Your task to perform on an android device: add a label to a message in the gmail app Image 0: 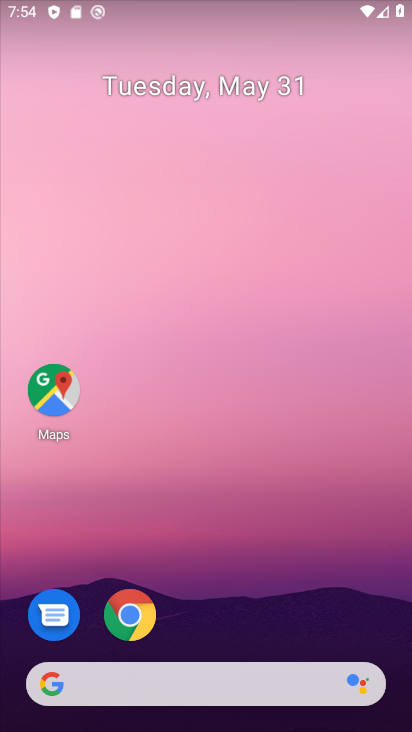
Step 0: drag from (216, 622) to (176, 0)
Your task to perform on an android device: add a label to a message in the gmail app Image 1: 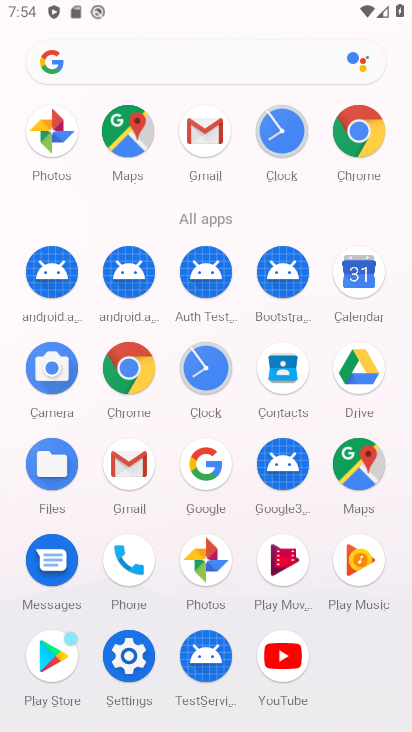
Step 1: click (114, 457)
Your task to perform on an android device: add a label to a message in the gmail app Image 2: 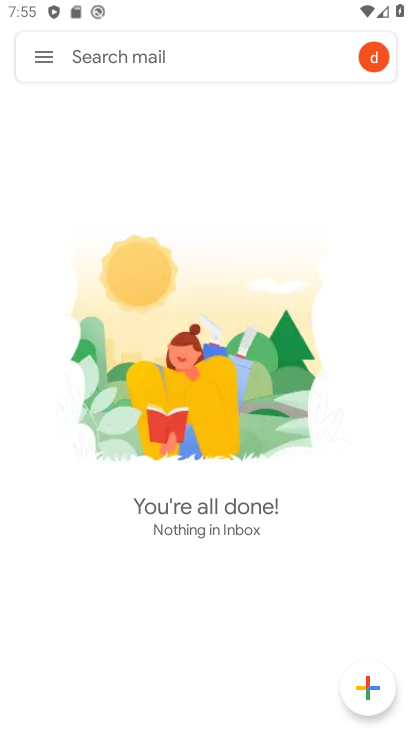
Step 2: click (31, 59)
Your task to perform on an android device: add a label to a message in the gmail app Image 3: 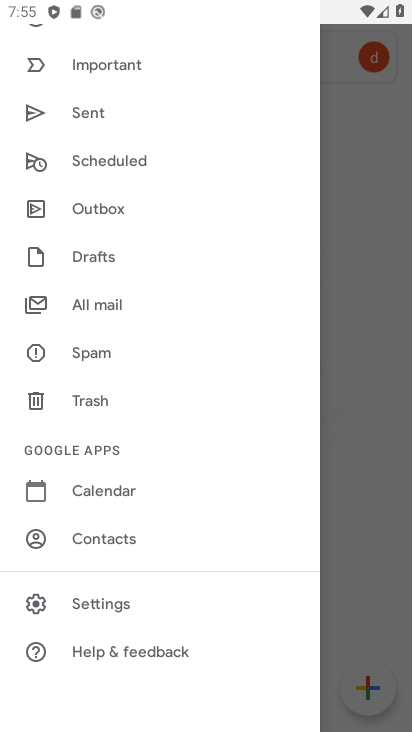
Step 3: click (103, 309)
Your task to perform on an android device: add a label to a message in the gmail app Image 4: 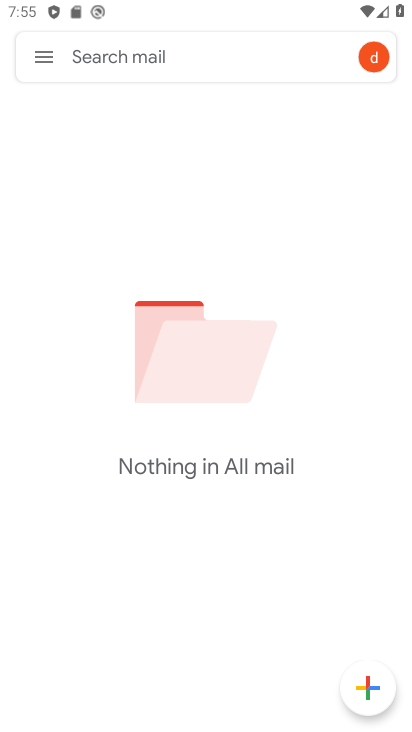
Step 4: task complete